Your task to perform on an android device: turn on notifications settings in the gmail app Image 0: 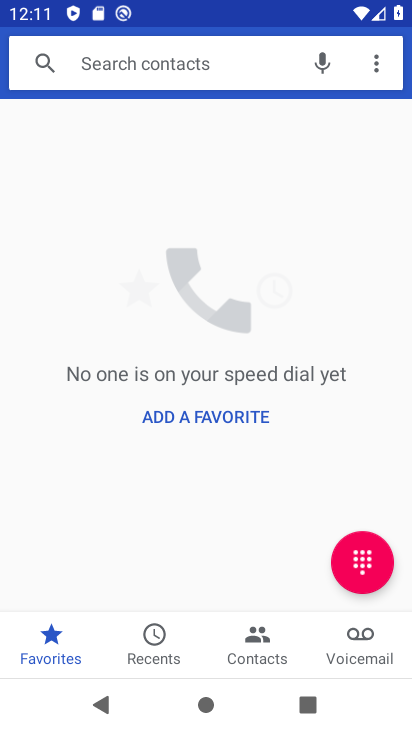
Step 0: press home button
Your task to perform on an android device: turn on notifications settings in the gmail app Image 1: 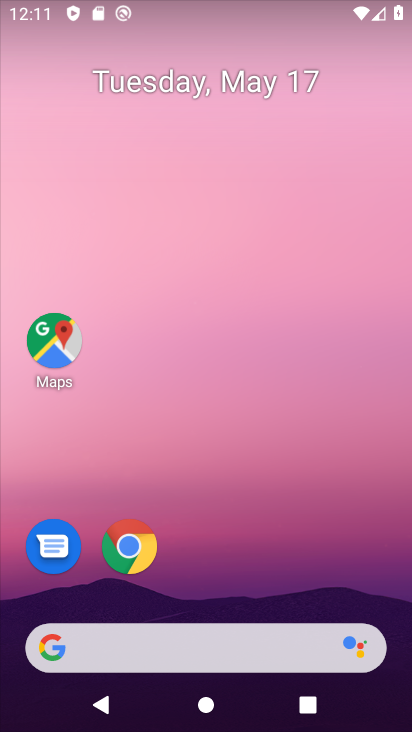
Step 1: drag from (325, 560) to (335, 40)
Your task to perform on an android device: turn on notifications settings in the gmail app Image 2: 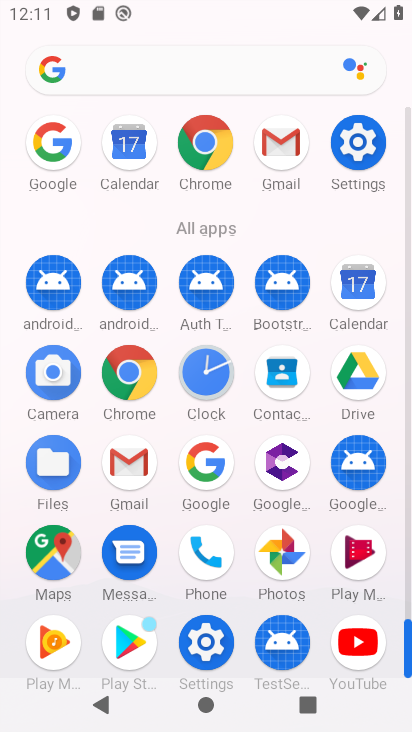
Step 2: click (298, 150)
Your task to perform on an android device: turn on notifications settings in the gmail app Image 3: 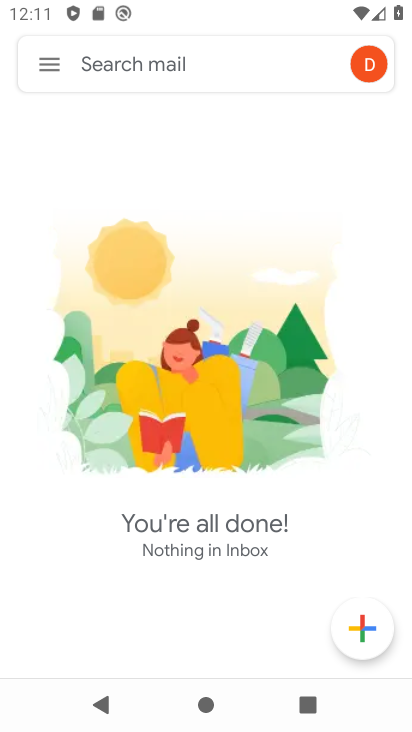
Step 3: click (50, 59)
Your task to perform on an android device: turn on notifications settings in the gmail app Image 4: 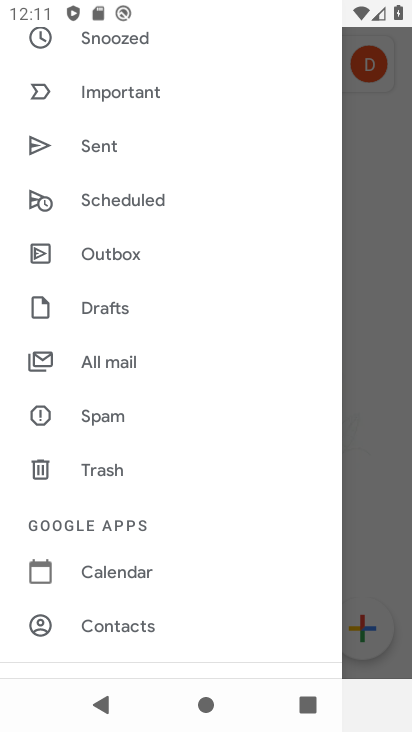
Step 4: drag from (119, 627) to (135, 73)
Your task to perform on an android device: turn on notifications settings in the gmail app Image 5: 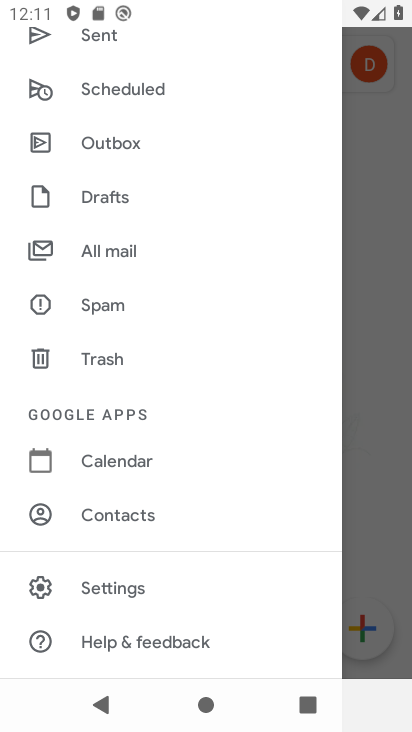
Step 5: click (107, 588)
Your task to perform on an android device: turn on notifications settings in the gmail app Image 6: 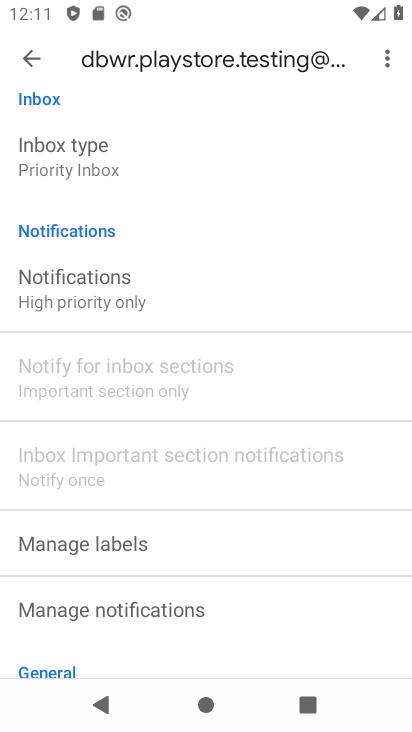
Step 6: click (81, 283)
Your task to perform on an android device: turn on notifications settings in the gmail app Image 7: 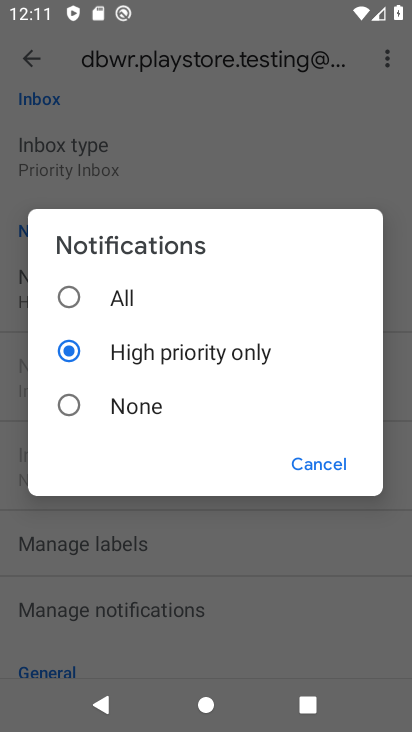
Step 7: task complete